Your task to perform on an android device: Go to privacy settings Image 0: 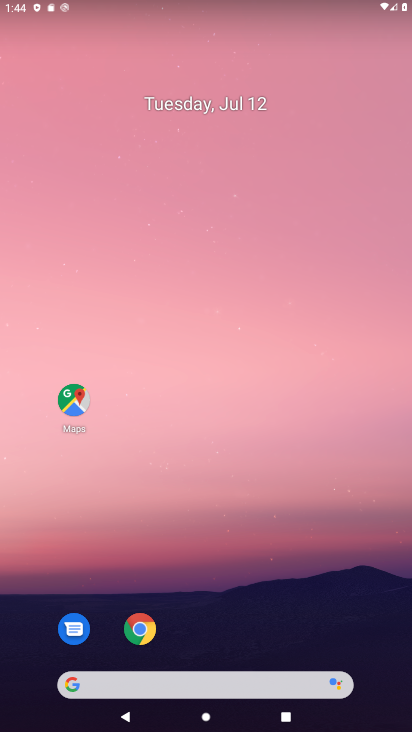
Step 0: drag from (329, 628) to (295, 66)
Your task to perform on an android device: Go to privacy settings Image 1: 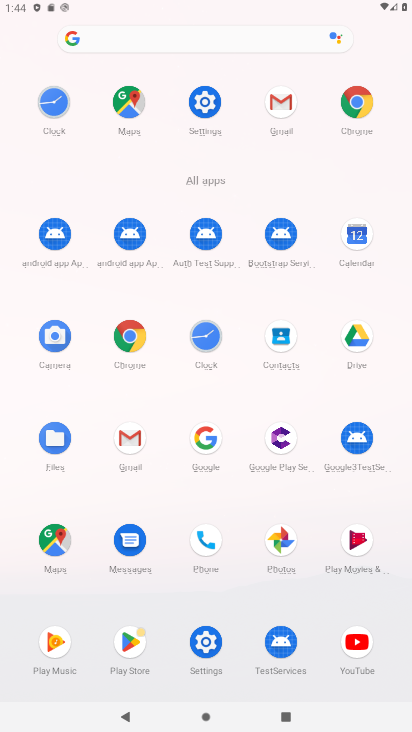
Step 1: click (200, 97)
Your task to perform on an android device: Go to privacy settings Image 2: 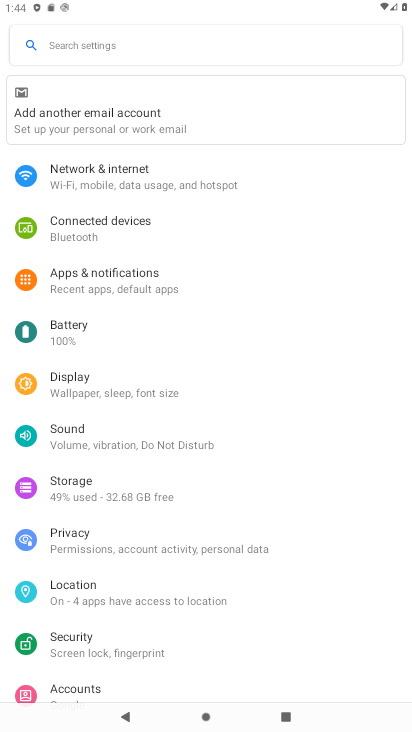
Step 2: click (153, 544)
Your task to perform on an android device: Go to privacy settings Image 3: 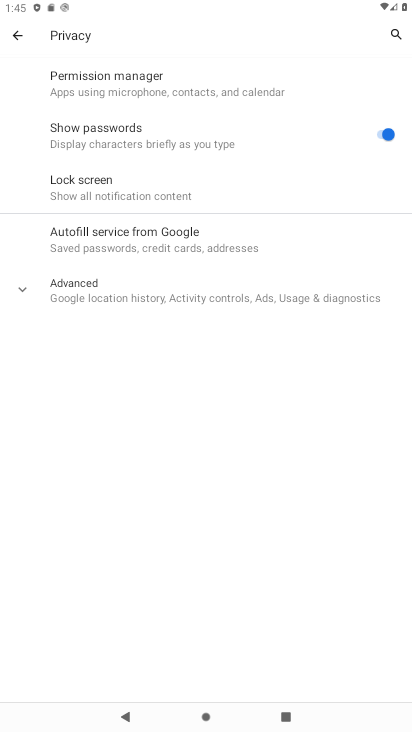
Step 3: task complete